Your task to perform on an android device: manage bookmarks in the chrome app Image 0: 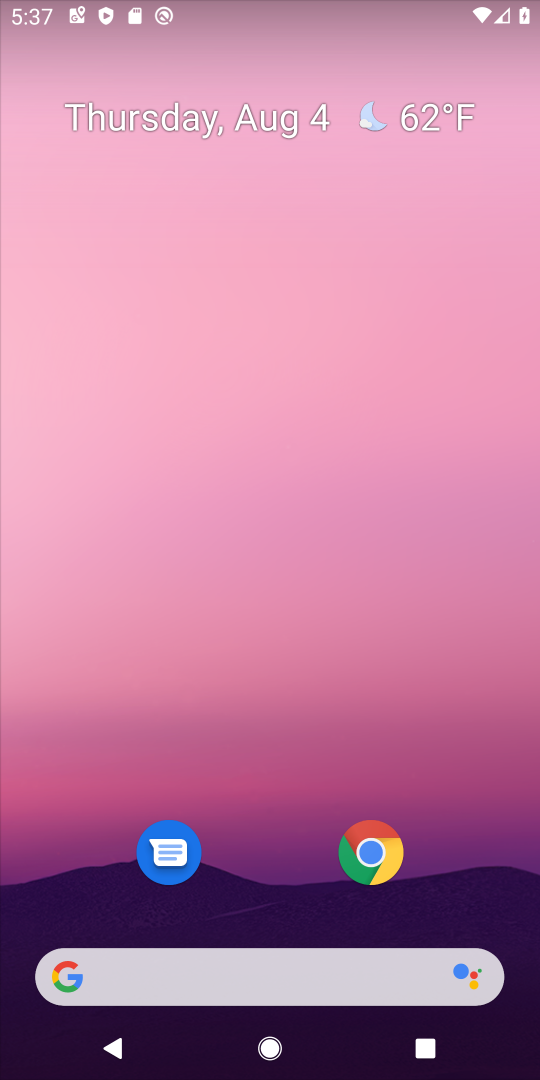
Step 0: click (384, 848)
Your task to perform on an android device: manage bookmarks in the chrome app Image 1: 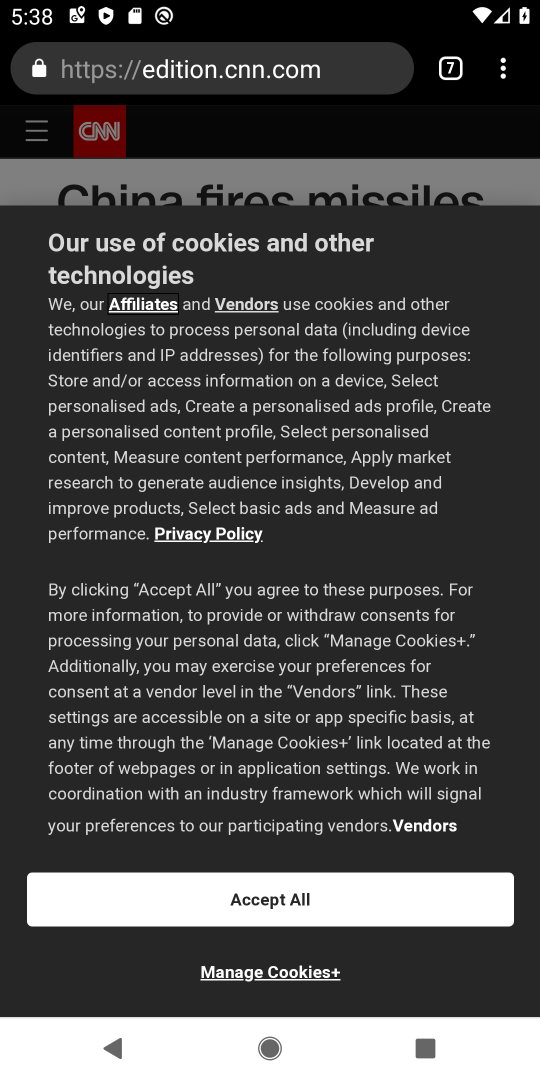
Step 1: click (506, 79)
Your task to perform on an android device: manage bookmarks in the chrome app Image 2: 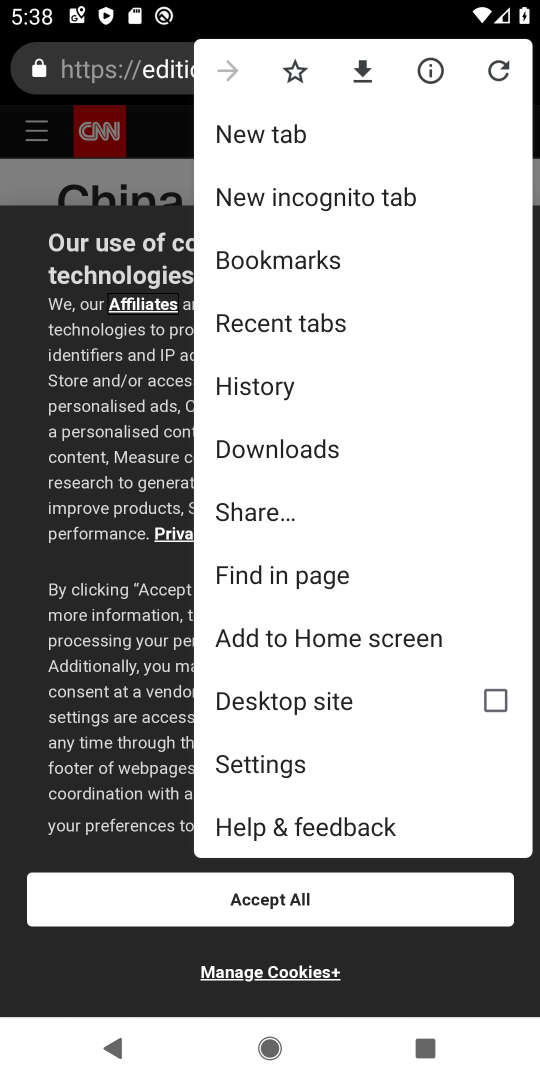
Step 2: click (301, 258)
Your task to perform on an android device: manage bookmarks in the chrome app Image 3: 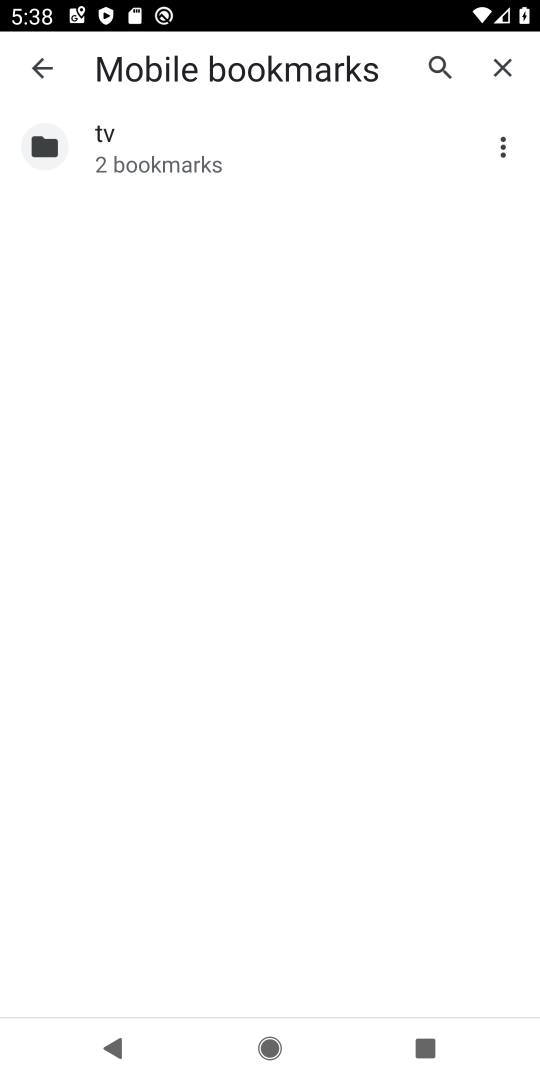
Step 3: click (506, 151)
Your task to perform on an android device: manage bookmarks in the chrome app Image 4: 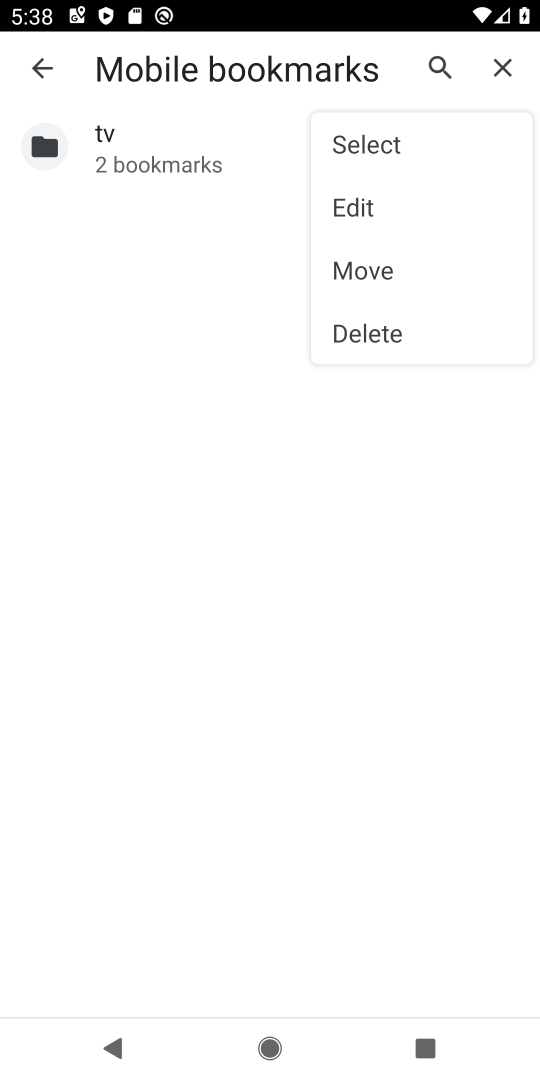
Step 4: click (348, 207)
Your task to perform on an android device: manage bookmarks in the chrome app Image 5: 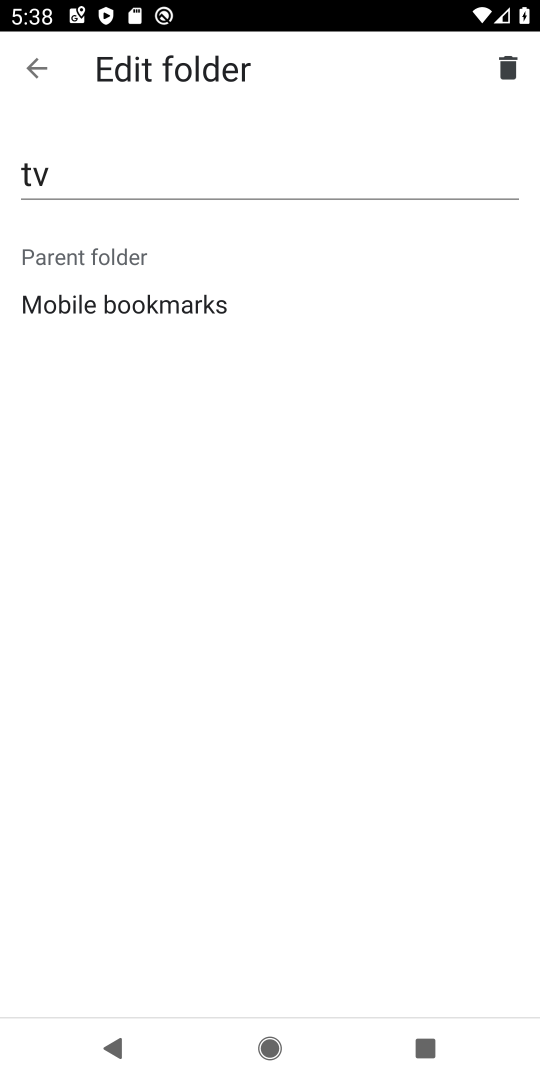
Step 5: click (131, 182)
Your task to perform on an android device: manage bookmarks in the chrome app Image 6: 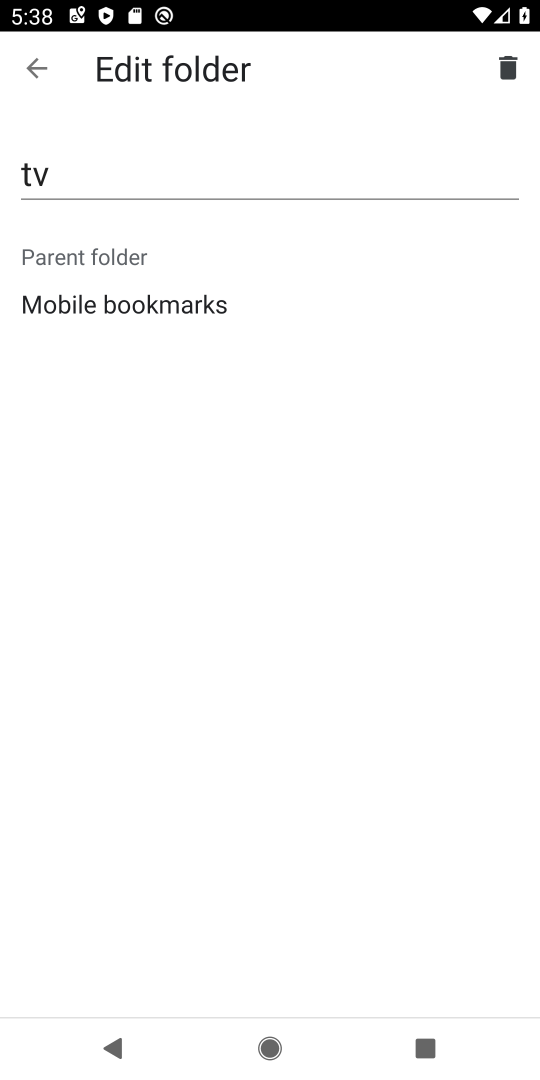
Step 6: click (131, 182)
Your task to perform on an android device: manage bookmarks in the chrome app Image 7: 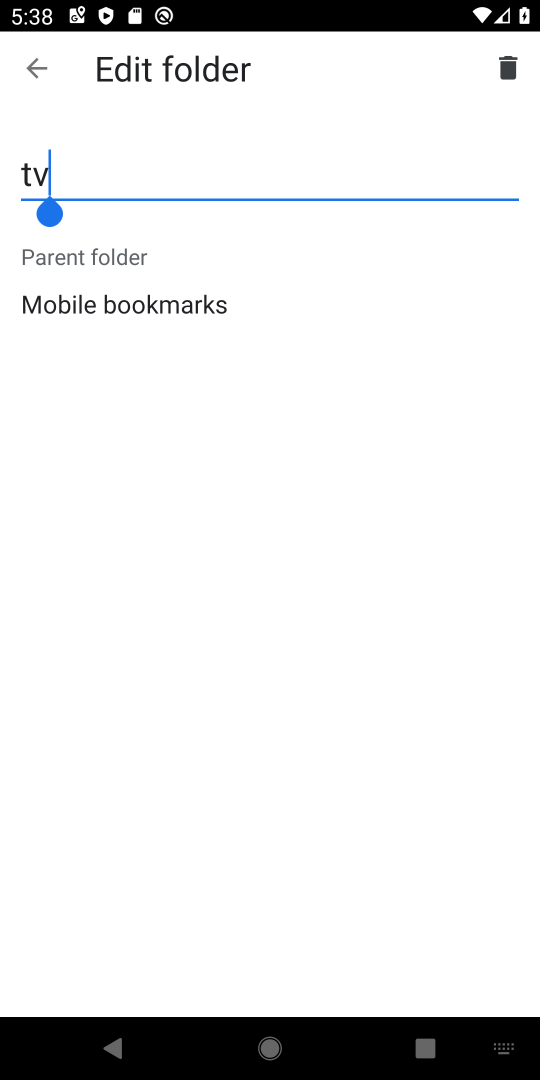
Step 7: click (39, 170)
Your task to perform on an android device: manage bookmarks in the chrome app Image 8: 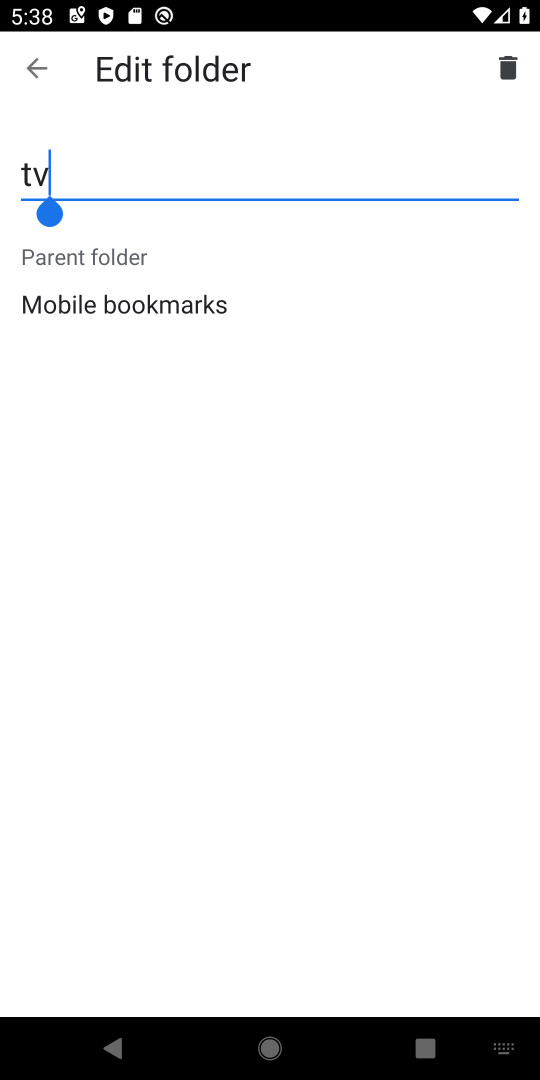
Step 8: click (39, 170)
Your task to perform on an android device: manage bookmarks in the chrome app Image 9: 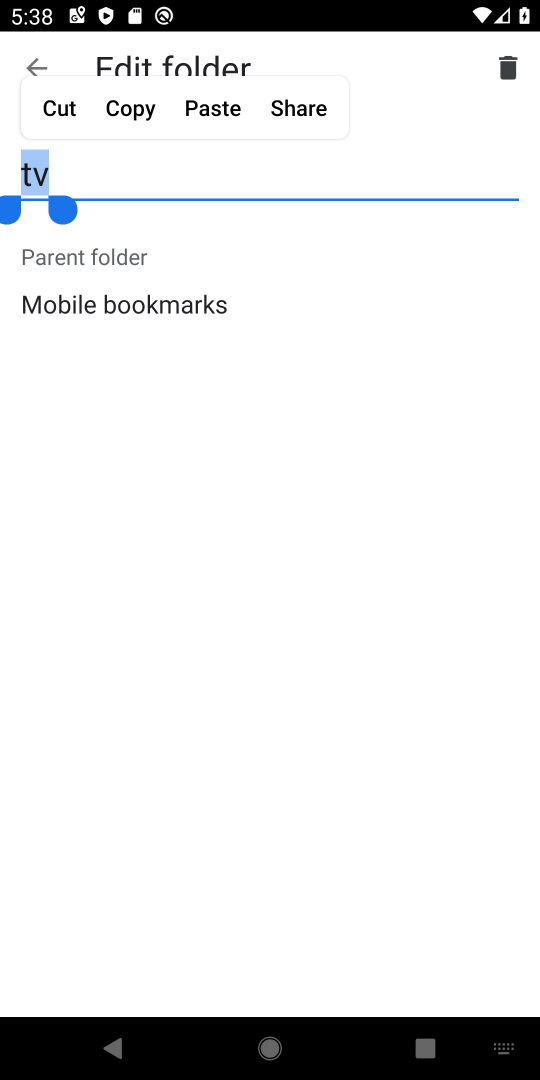
Step 9: click (61, 104)
Your task to perform on an android device: manage bookmarks in the chrome app Image 10: 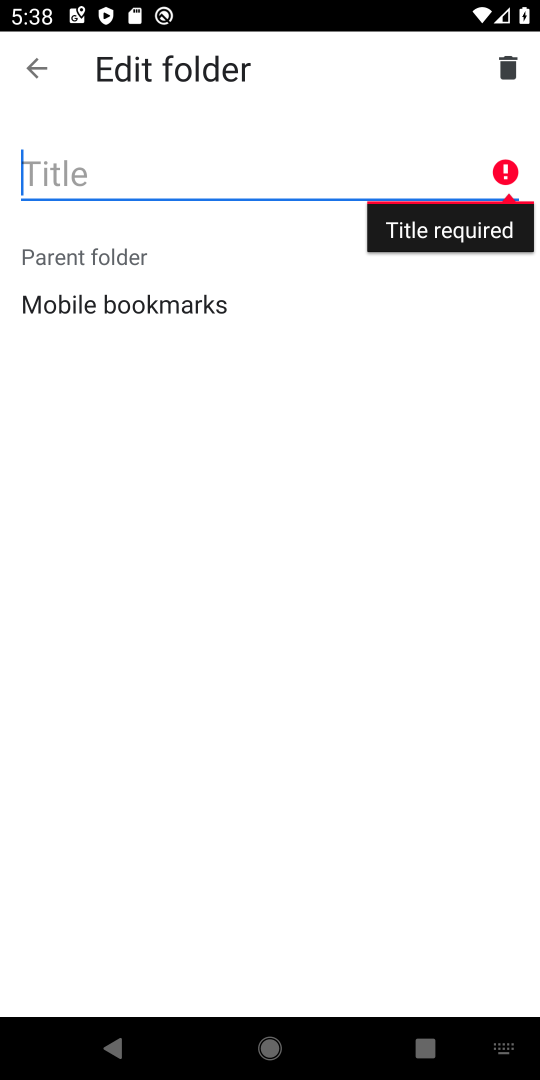
Step 10: type "uyuy"
Your task to perform on an android device: manage bookmarks in the chrome app Image 11: 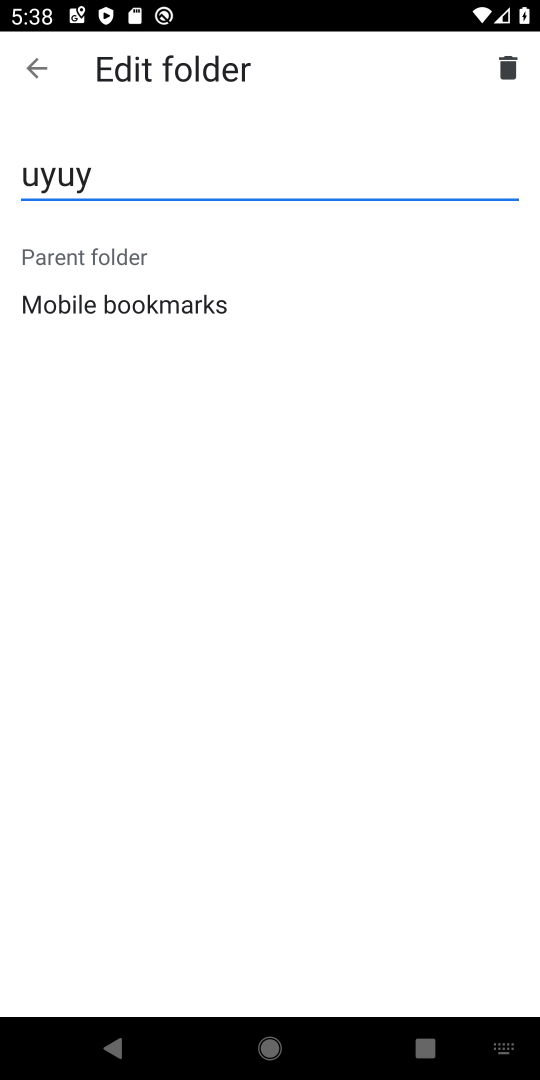
Step 11: click (299, 275)
Your task to perform on an android device: manage bookmarks in the chrome app Image 12: 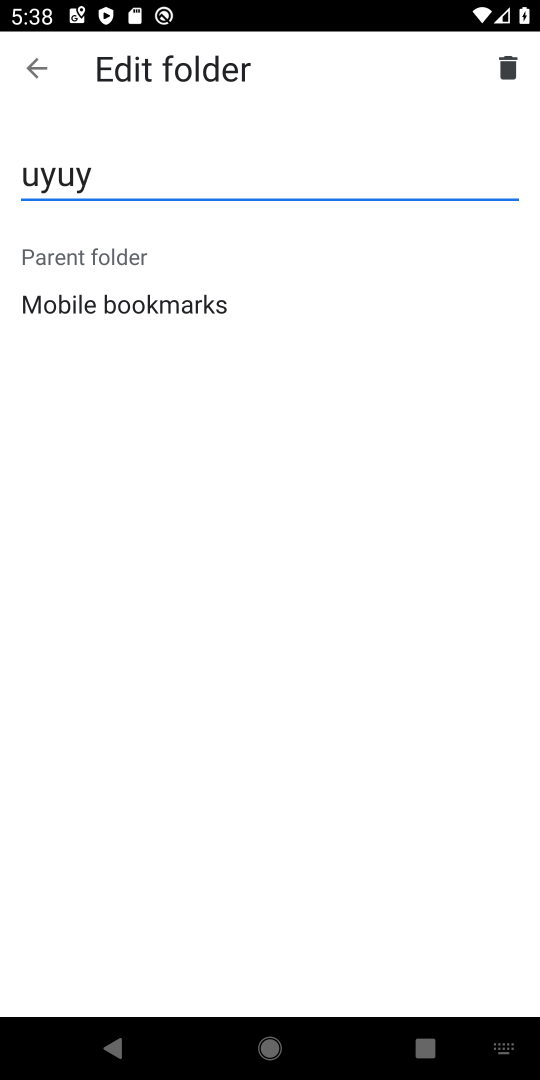
Step 12: click (42, 69)
Your task to perform on an android device: manage bookmarks in the chrome app Image 13: 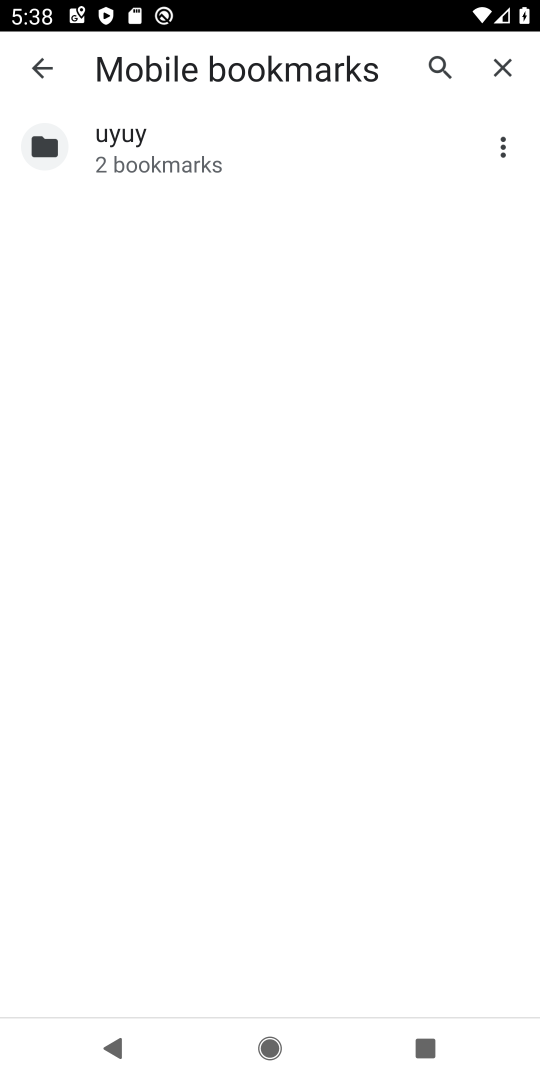
Step 13: task complete